Your task to perform on an android device: Go to sound settings Image 0: 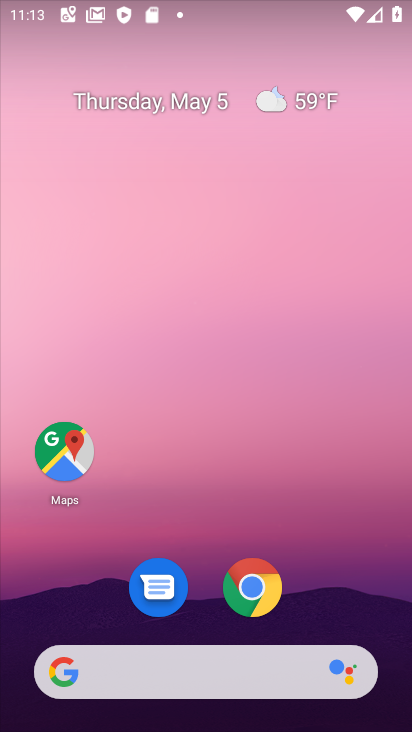
Step 0: drag from (33, 646) to (233, 120)
Your task to perform on an android device: Go to sound settings Image 1: 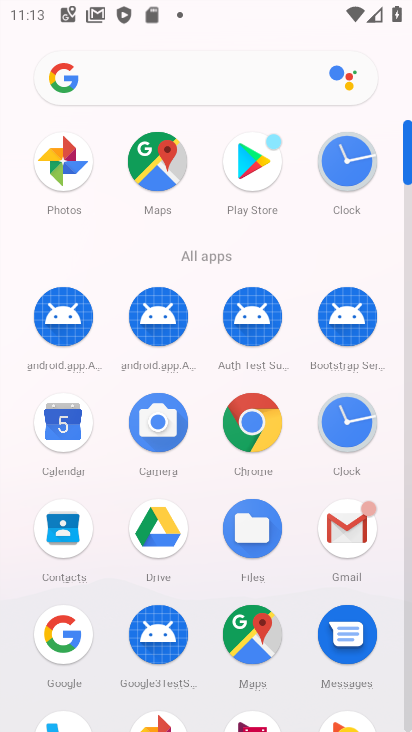
Step 1: drag from (192, 640) to (264, 320)
Your task to perform on an android device: Go to sound settings Image 2: 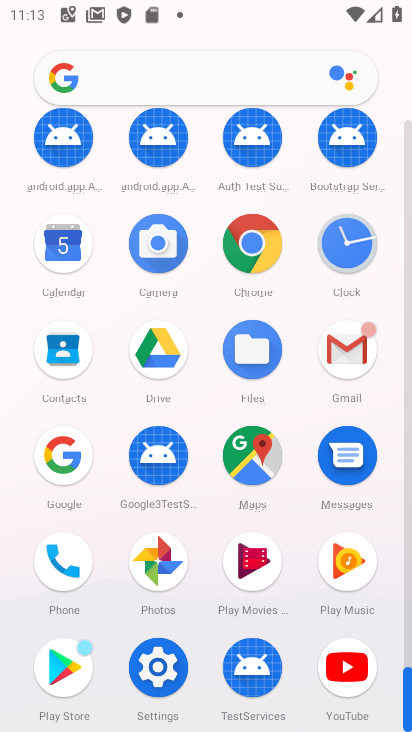
Step 2: click (156, 678)
Your task to perform on an android device: Go to sound settings Image 3: 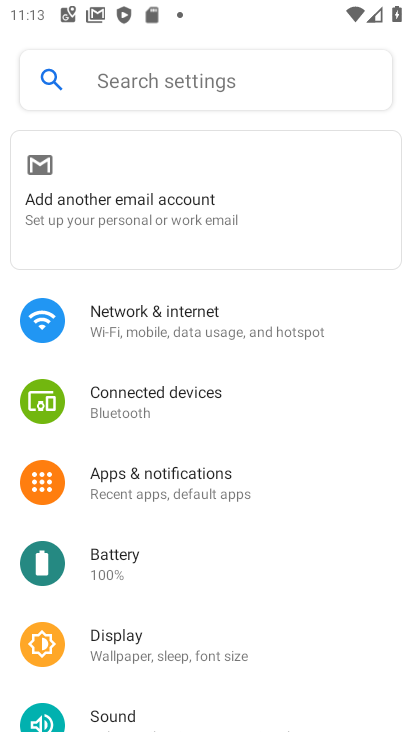
Step 3: drag from (142, 679) to (244, 349)
Your task to perform on an android device: Go to sound settings Image 4: 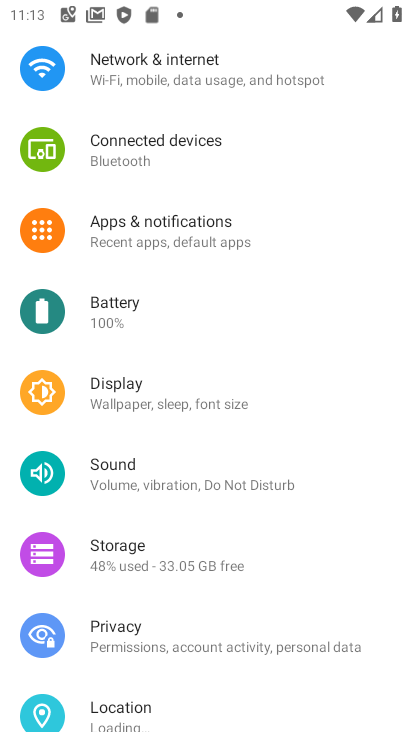
Step 4: click (118, 487)
Your task to perform on an android device: Go to sound settings Image 5: 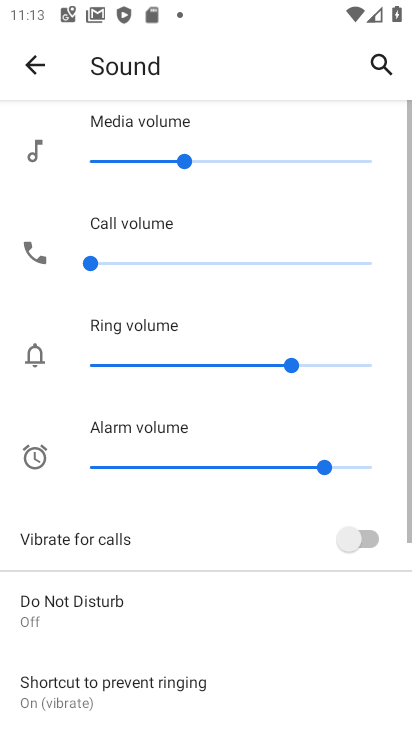
Step 5: task complete